Your task to perform on an android device: set an alarm Image 0: 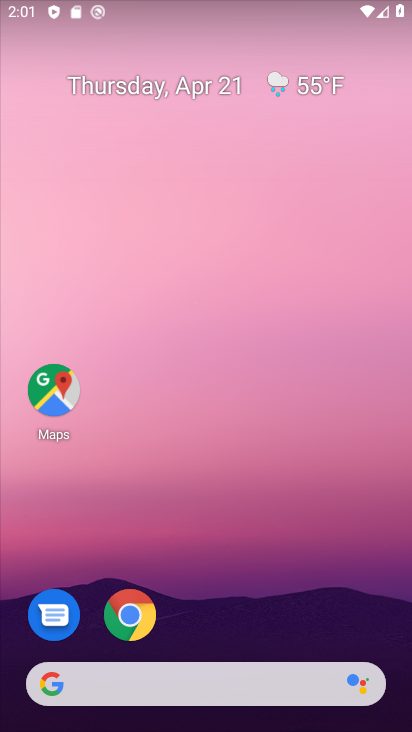
Step 0: drag from (224, 633) to (224, 333)
Your task to perform on an android device: set an alarm Image 1: 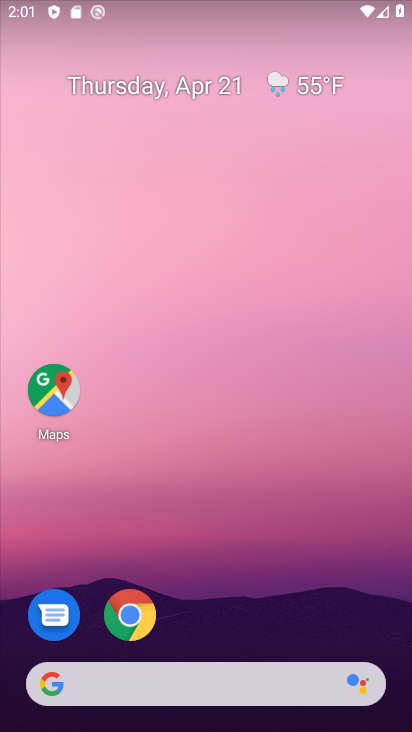
Step 1: drag from (198, 620) to (299, 219)
Your task to perform on an android device: set an alarm Image 2: 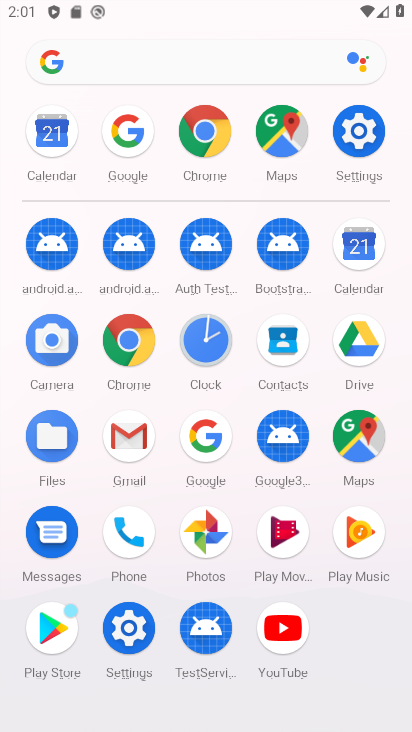
Step 2: click (196, 340)
Your task to perform on an android device: set an alarm Image 3: 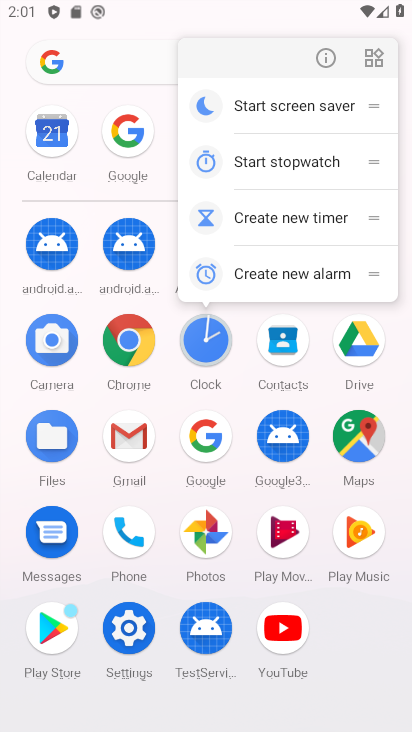
Step 3: click (206, 353)
Your task to perform on an android device: set an alarm Image 4: 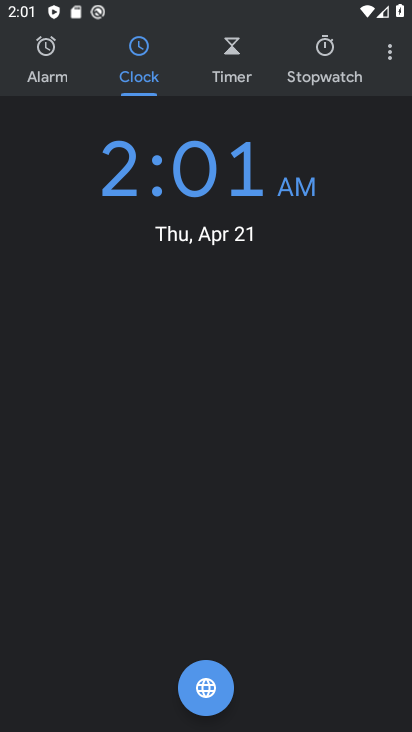
Step 4: click (39, 73)
Your task to perform on an android device: set an alarm Image 5: 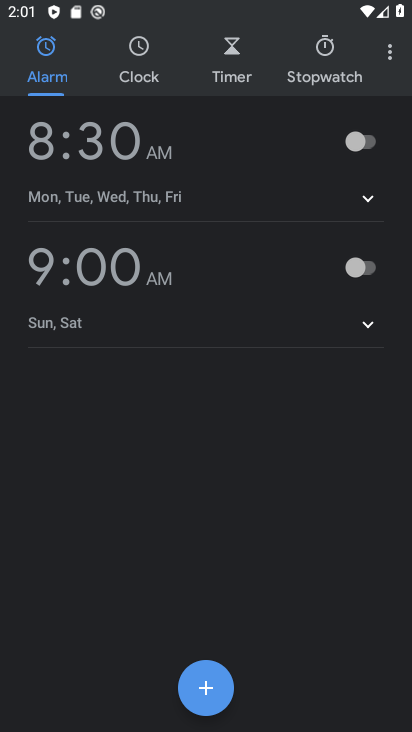
Step 5: click (204, 689)
Your task to perform on an android device: set an alarm Image 6: 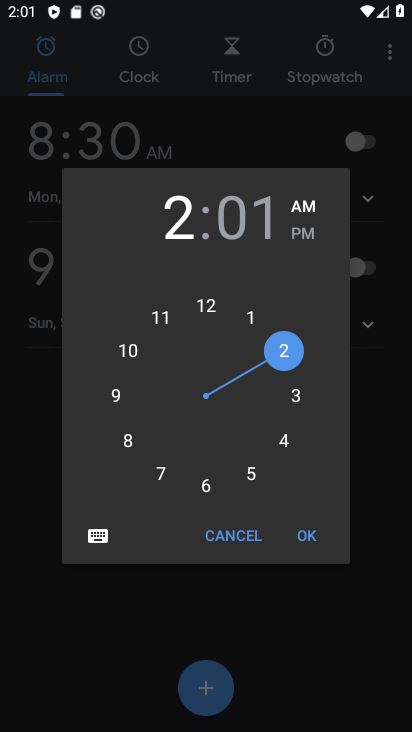
Step 6: click (127, 351)
Your task to perform on an android device: set an alarm Image 7: 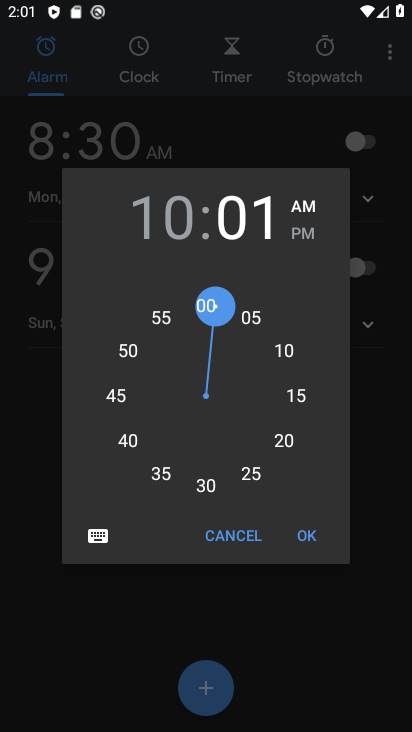
Step 7: click (207, 302)
Your task to perform on an android device: set an alarm Image 8: 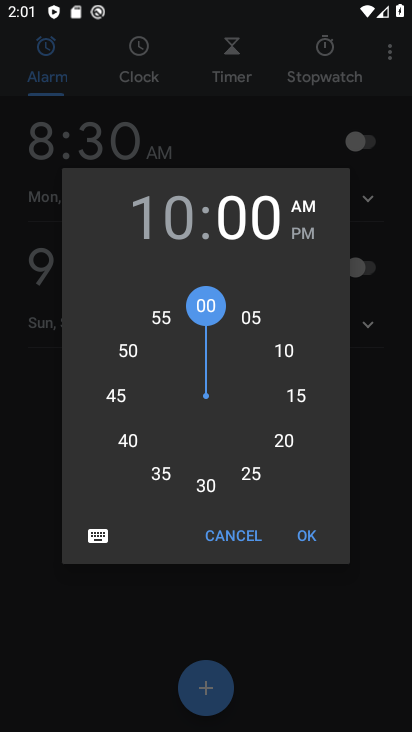
Step 8: click (311, 235)
Your task to perform on an android device: set an alarm Image 9: 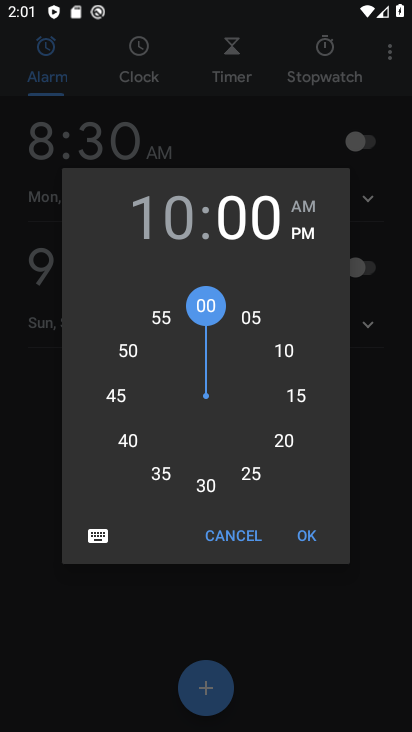
Step 9: click (301, 536)
Your task to perform on an android device: set an alarm Image 10: 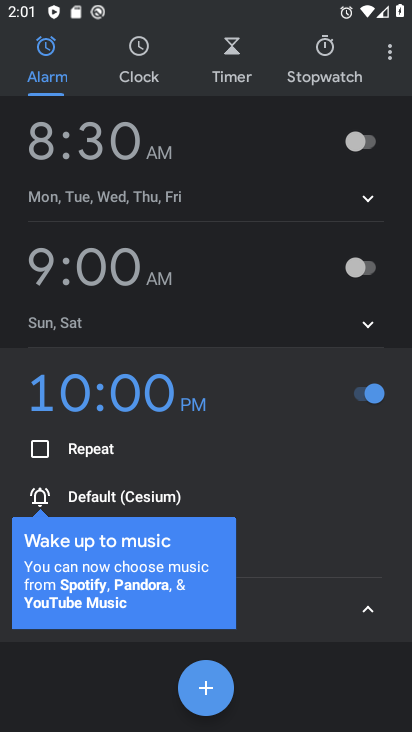
Step 10: click (293, 501)
Your task to perform on an android device: set an alarm Image 11: 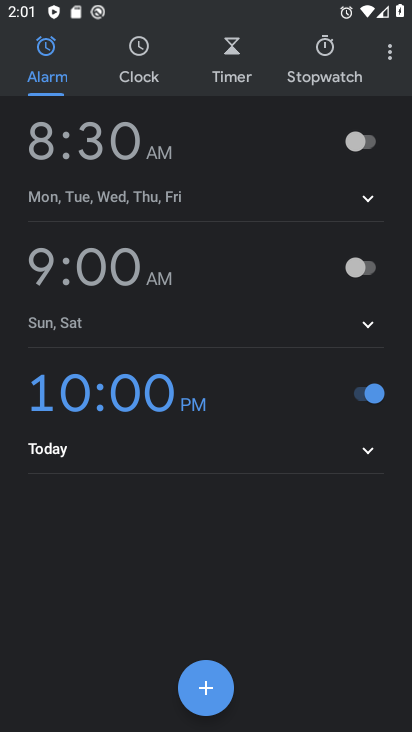
Step 11: task complete